Your task to perform on an android device: Do I have any events this weekend? Image 0: 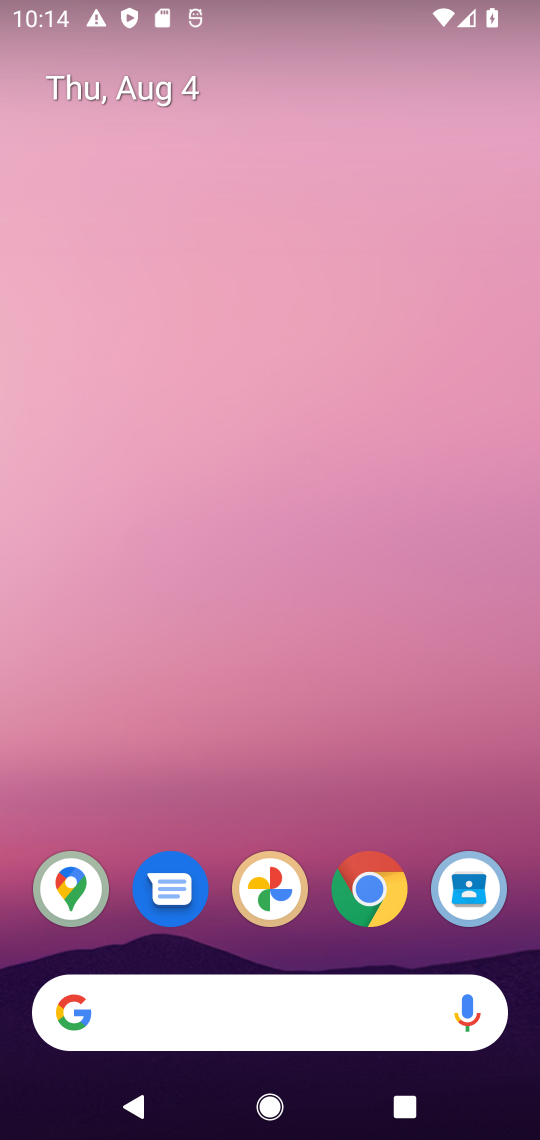
Step 0: drag from (321, 779) to (340, 289)
Your task to perform on an android device: Do I have any events this weekend? Image 1: 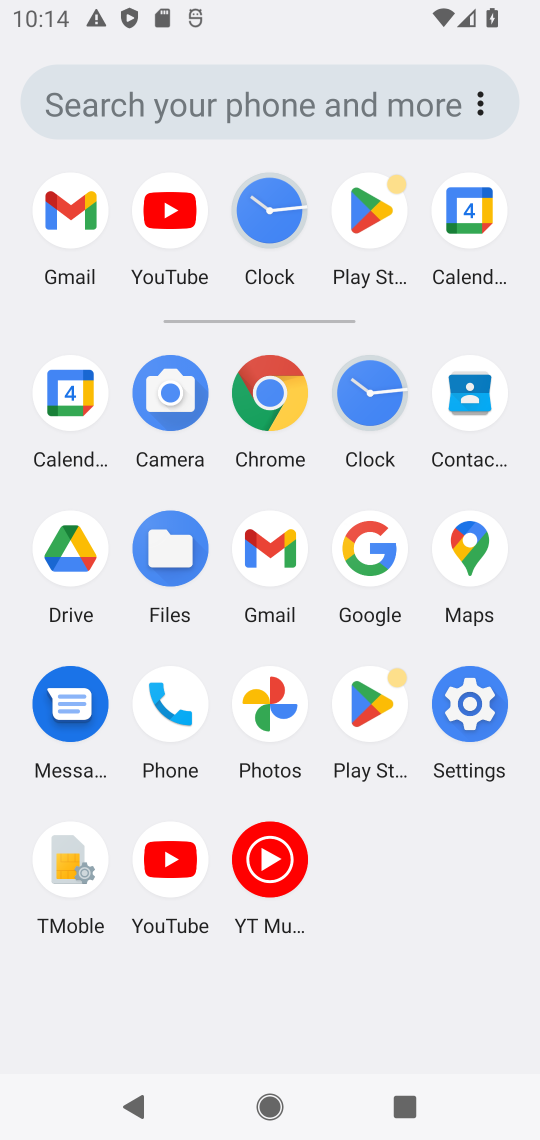
Step 1: click (78, 399)
Your task to perform on an android device: Do I have any events this weekend? Image 2: 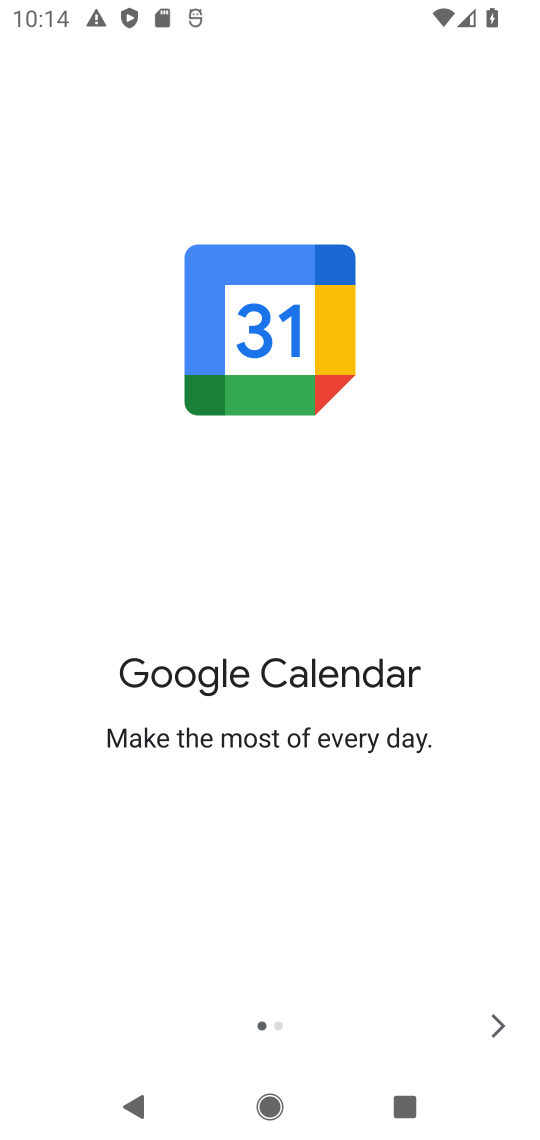
Step 2: click (483, 1019)
Your task to perform on an android device: Do I have any events this weekend? Image 3: 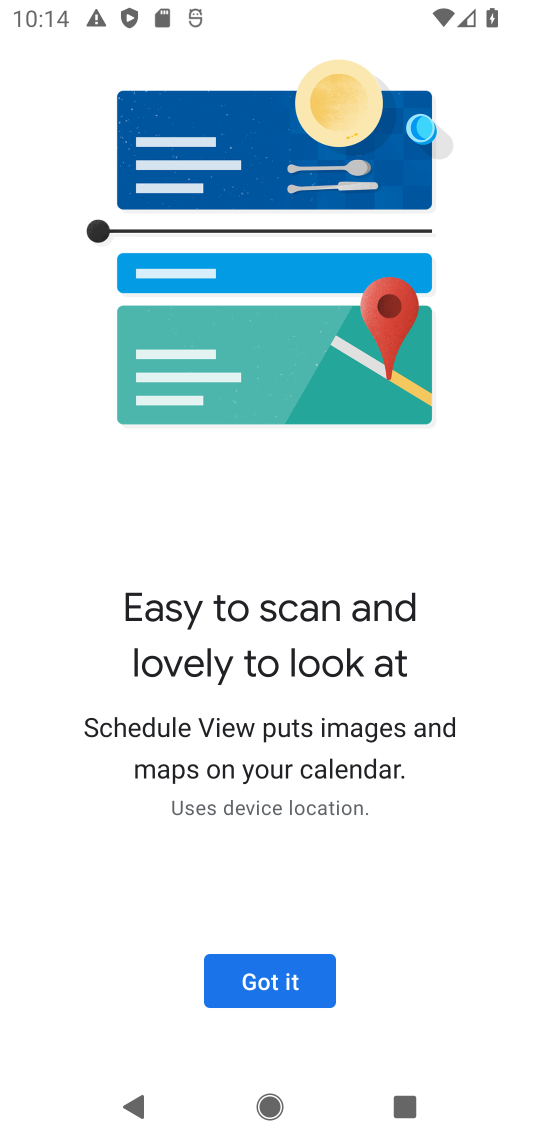
Step 3: click (280, 982)
Your task to perform on an android device: Do I have any events this weekend? Image 4: 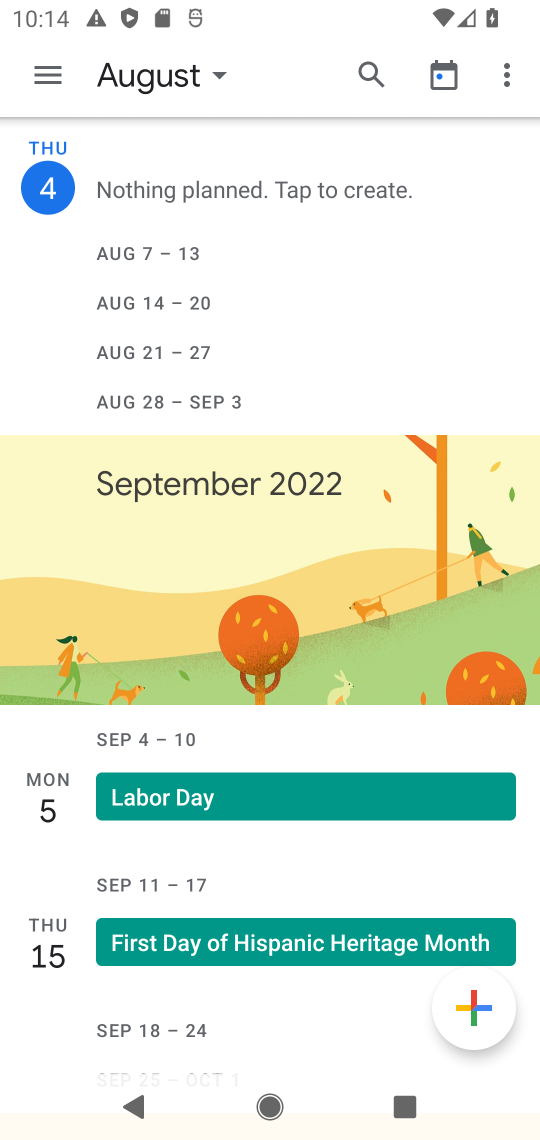
Step 4: task complete